Your task to perform on an android device: create a new album in the google photos Image 0: 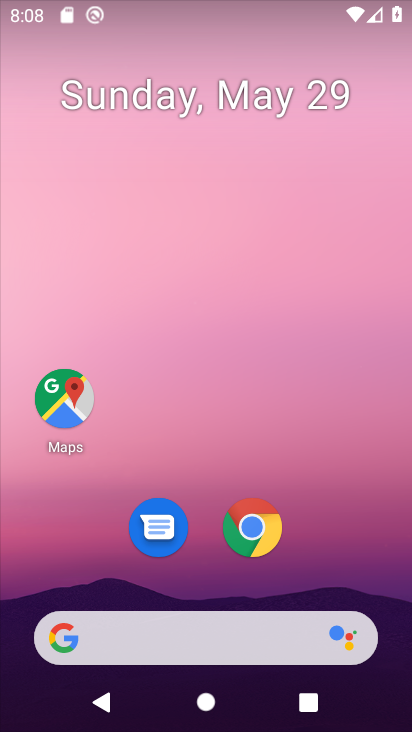
Step 0: press home button
Your task to perform on an android device: create a new album in the google photos Image 1: 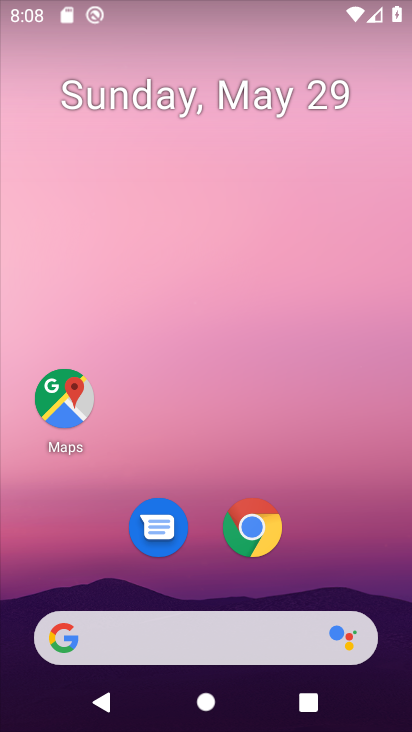
Step 1: drag from (209, 572) to (195, 282)
Your task to perform on an android device: create a new album in the google photos Image 2: 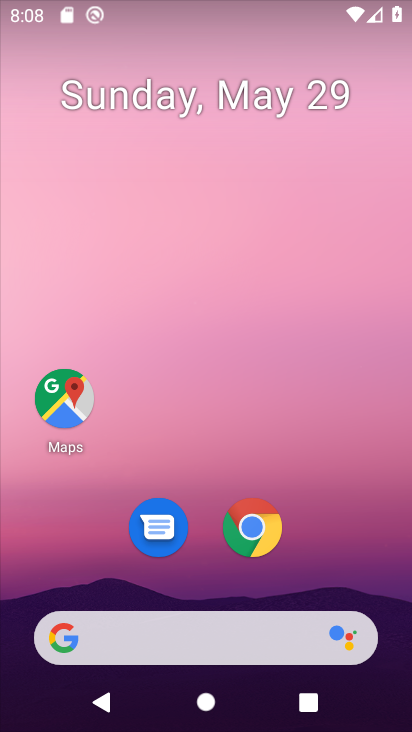
Step 2: drag from (201, 345) to (211, 91)
Your task to perform on an android device: create a new album in the google photos Image 3: 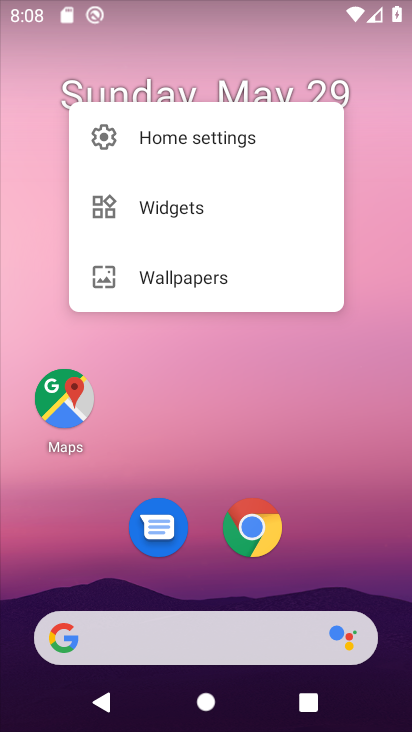
Step 3: drag from (207, 584) to (199, 198)
Your task to perform on an android device: create a new album in the google photos Image 4: 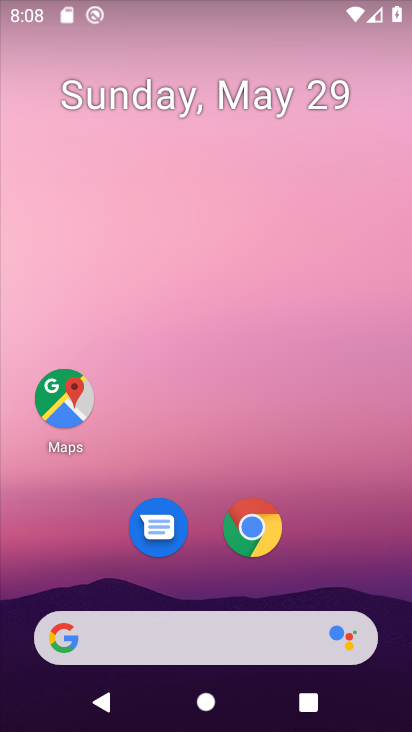
Step 4: drag from (319, 559) to (311, 159)
Your task to perform on an android device: create a new album in the google photos Image 5: 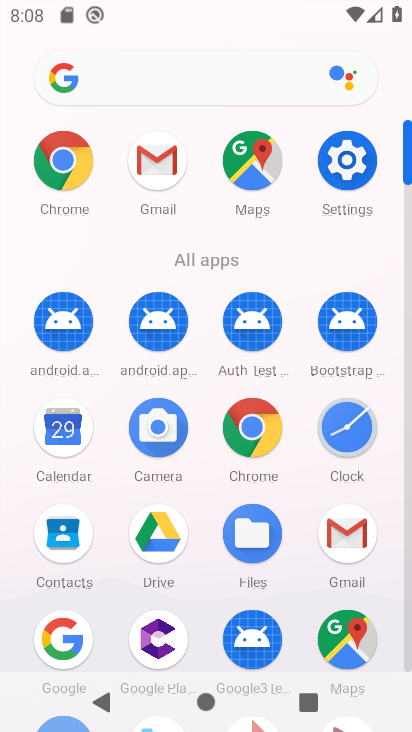
Step 5: drag from (197, 622) to (181, 238)
Your task to perform on an android device: create a new album in the google photos Image 6: 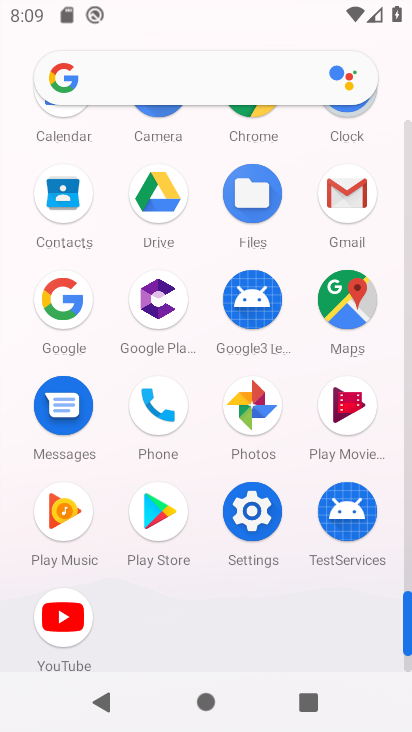
Step 6: click (246, 399)
Your task to perform on an android device: create a new album in the google photos Image 7: 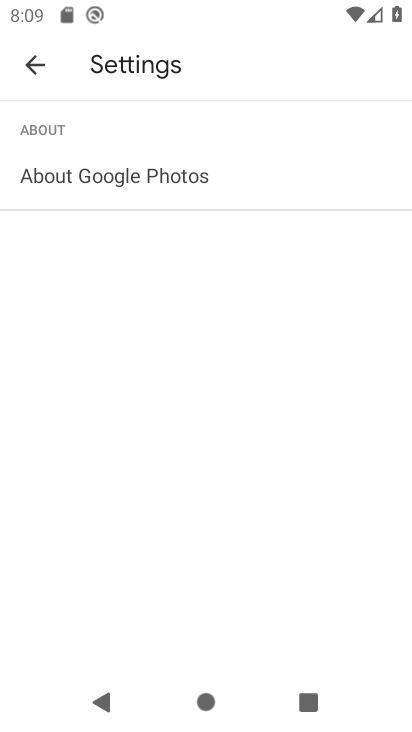
Step 7: click (25, 64)
Your task to perform on an android device: create a new album in the google photos Image 8: 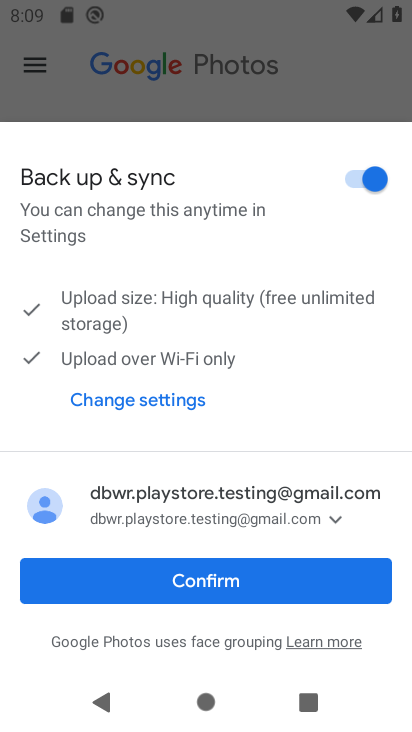
Step 8: click (214, 587)
Your task to perform on an android device: create a new album in the google photos Image 9: 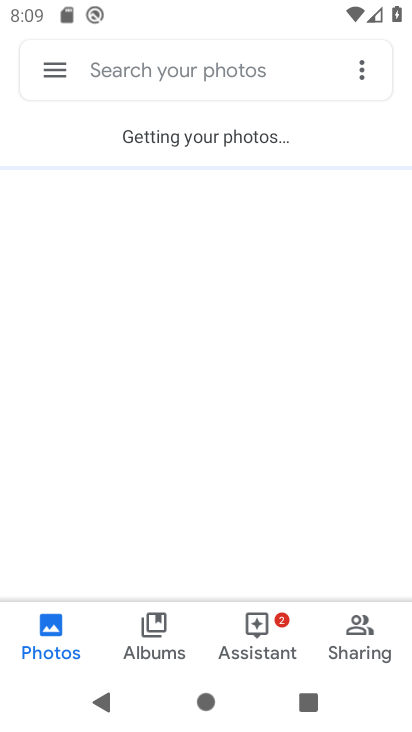
Step 9: click (143, 626)
Your task to perform on an android device: create a new album in the google photos Image 10: 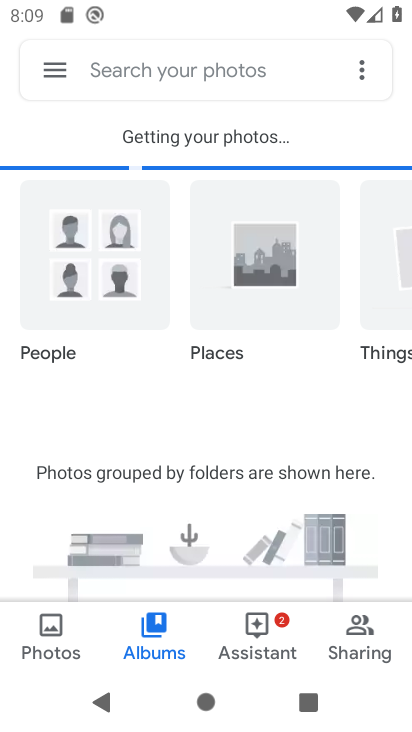
Step 10: click (363, 71)
Your task to perform on an android device: create a new album in the google photos Image 11: 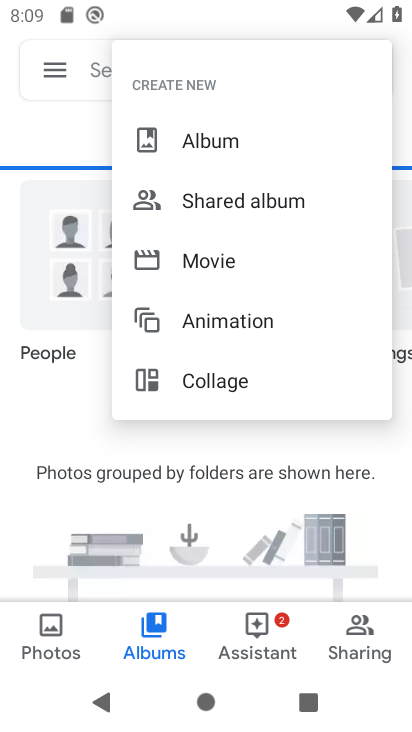
Step 11: click (236, 141)
Your task to perform on an android device: create a new album in the google photos Image 12: 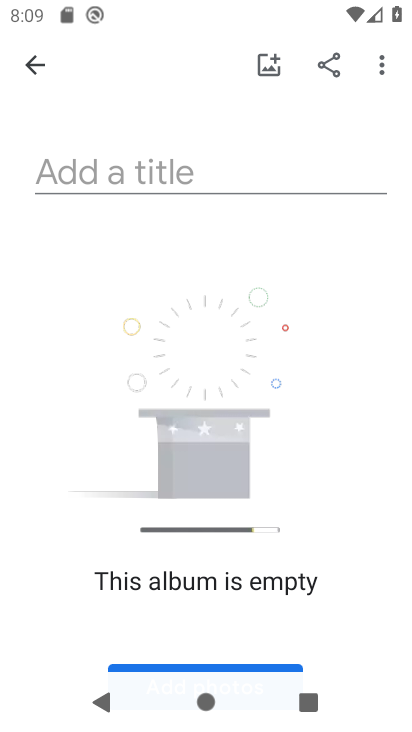
Step 12: click (212, 661)
Your task to perform on an android device: create a new album in the google photos Image 13: 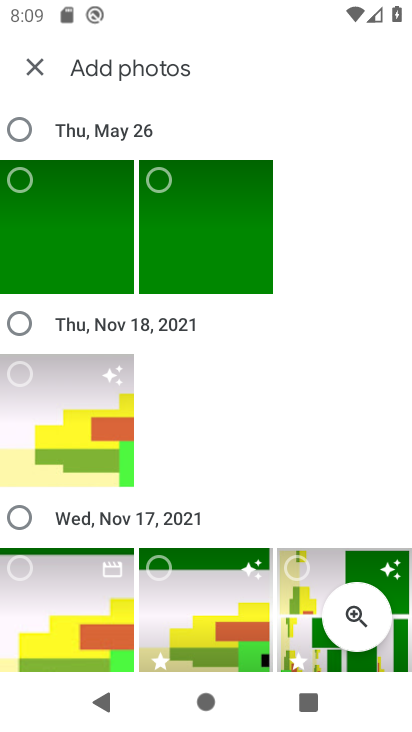
Step 13: click (45, 449)
Your task to perform on an android device: create a new album in the google photos Image 14: 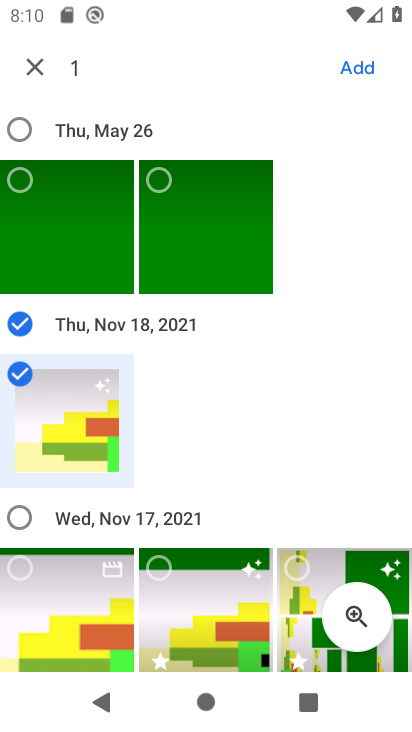
Step 14: drag from (295, 573) to (202, 631)
Your task to perform on an android device: create a new album in the google photos Image 15: 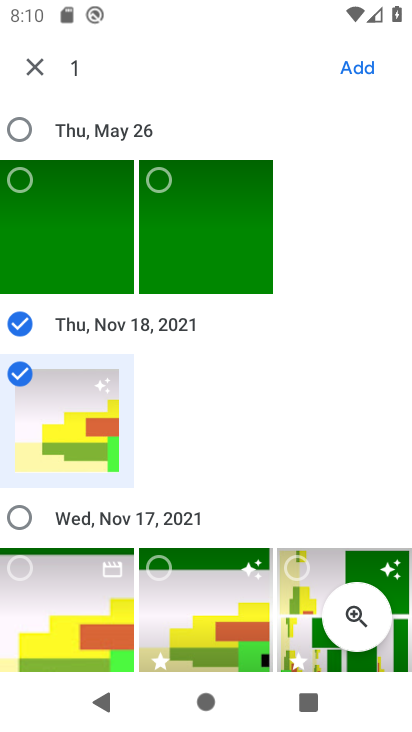
Step 15: click (364, 67)
Your task to perform on an android device: create a new album in the google photos Image 16: 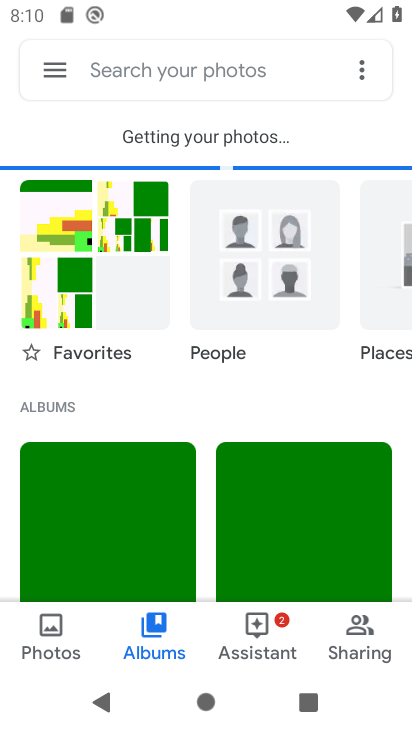
Step 16: click (361, 70)
Your task to perform on an android device: create a new album in the google photos Image 17: 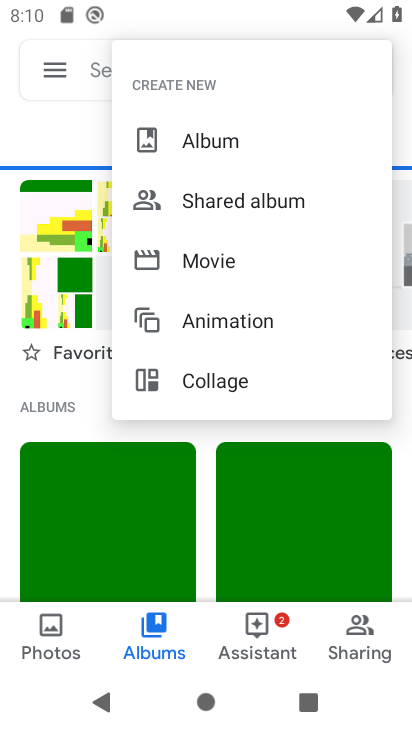
Step 17: click (246, 129)
Your task to perform on an android device: create a new album in the google photos Image 18: 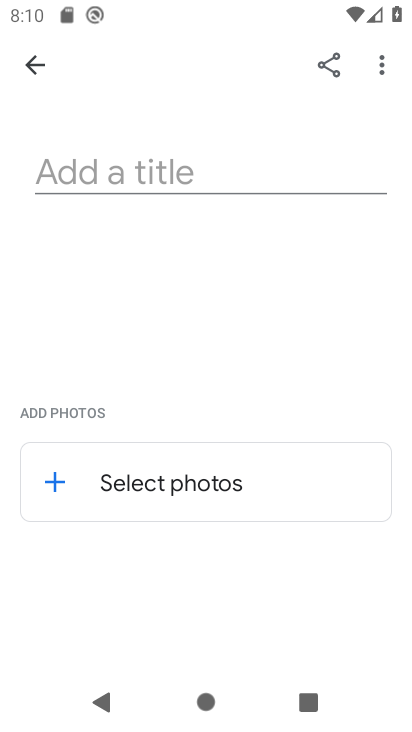
Step 18: click (91, 480)
Your task to perform on an android device: create a new album in the google photos Image 19: 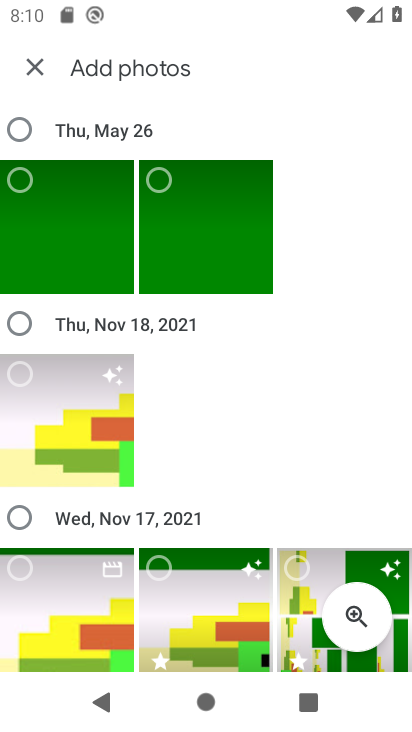
Step 19: click (86, 218)
Your task to perform on an android device: create a new album in the google photos Image 20: 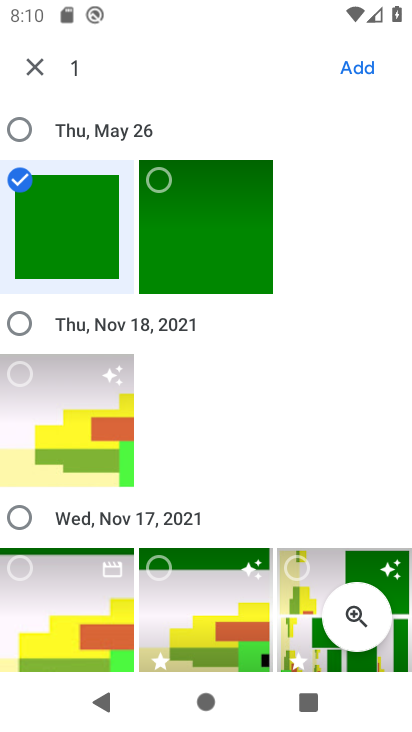
Step 20: click (79, 405)
Your task to perform on an android device: create a new album in the google photos Image 21: 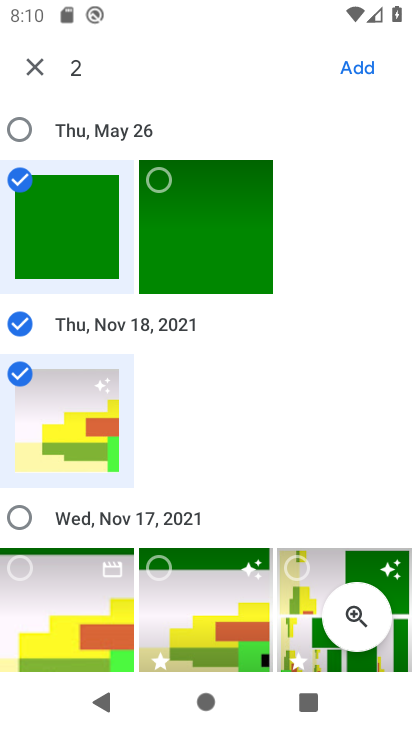
Step 21: click (240, 601)
Your task to perform on an android device: create a new album in the google photos Image 22: 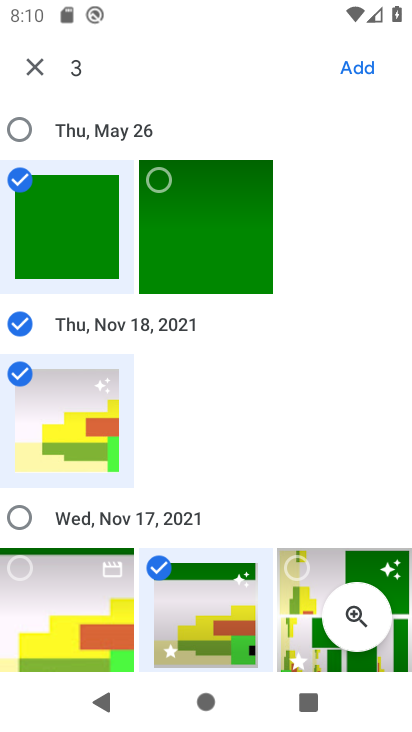
Step 22: click (308, 589)
Your task to perform on an android device: create a new album in the google photos Image 23: 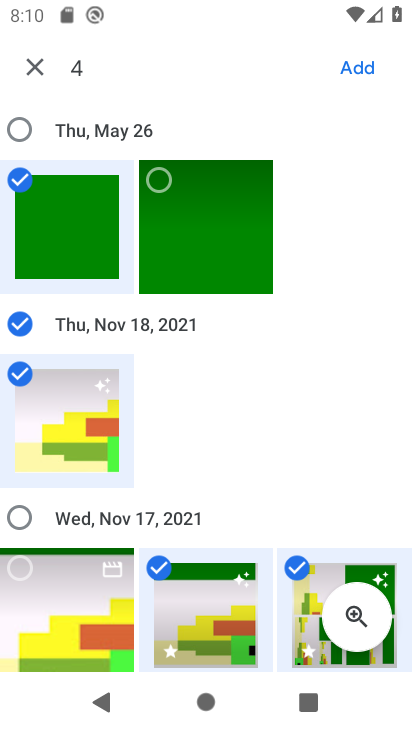
Step 23: click (350, 53)
Your task to perform on an android device: create a new album in the google photos Image 24: 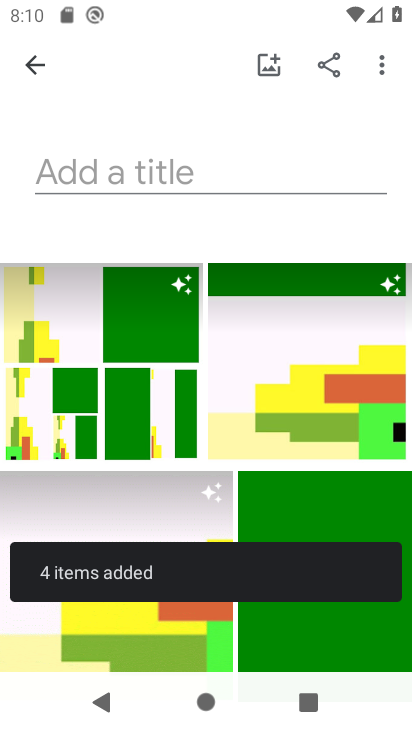
Step 24: click (113, 171)
Your task to perform on an android device: create a new album in the google photos Image 25: 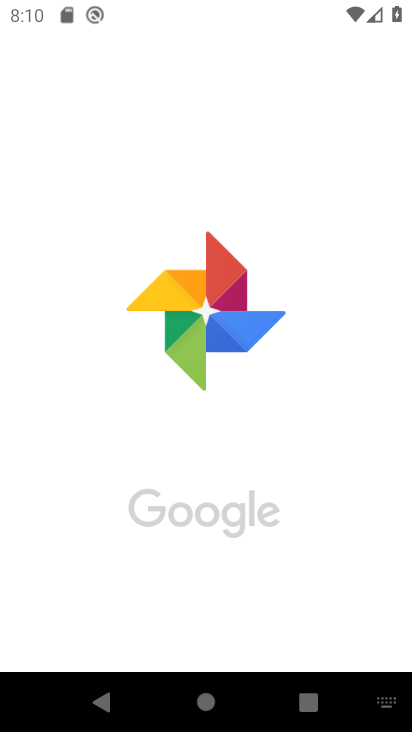
Step 25: type "nbgfcfct"
Your task to perform on an android device: create a new album in the google photos Image 26: 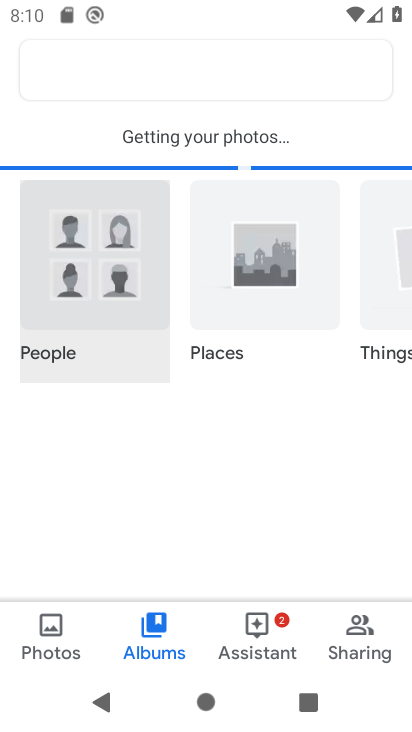
Step 26: task complete